Your task to perform on an android device: Go to Yahoo.com Image 0: 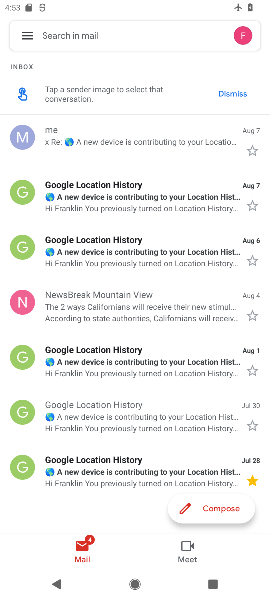
Step 0: press home button
Your task to perform on an android device: Go to Yahoo.com Image 1: 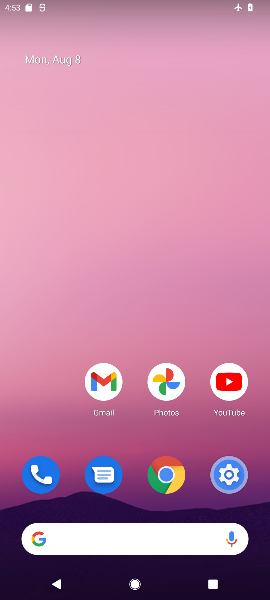
Step 1: drag from (67, 428) to (76, 188)
Your task to perform on an android device: Go to Yahoo.com Image 2: 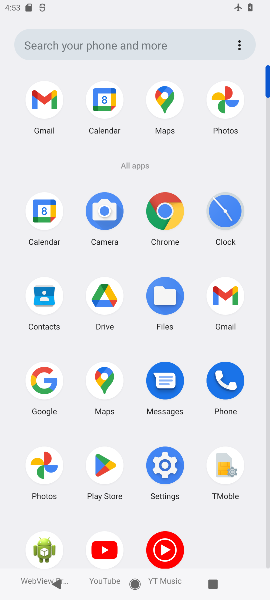
Step 2: click (162, 210)
Your task to perform on an android device: Go to Yahoo.com Image 3: 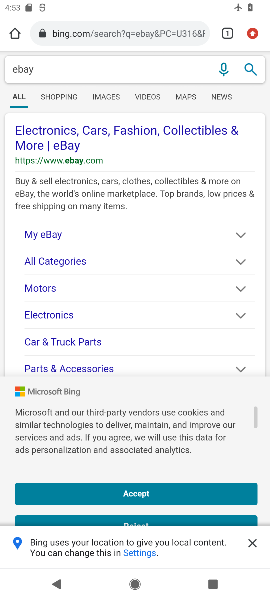
Step 3: click (168, 30)
Your task to perform on an android device: Go to Yahoo.com Image 4: 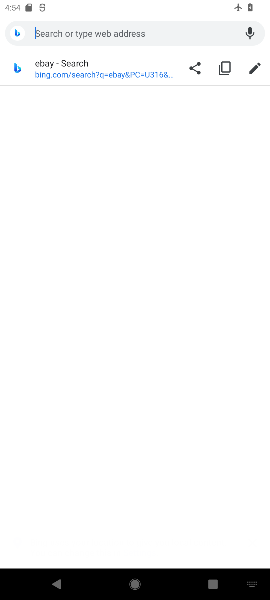
Step 4: type "yahoo.com"
Your task to perform on an android device: Go to Yahoo.com Image 5: 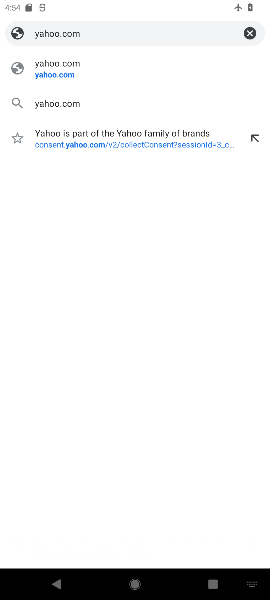
Step 5: click (60, 66)
Your task to perform on an android device: Go to Yahoo.com Image 6: 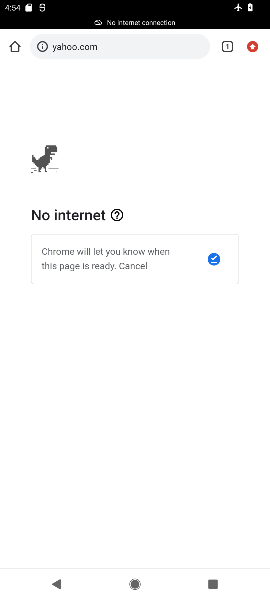
Step 6: task complete